Your task to perform on an android device: turn off picture-in-picture Image 0: 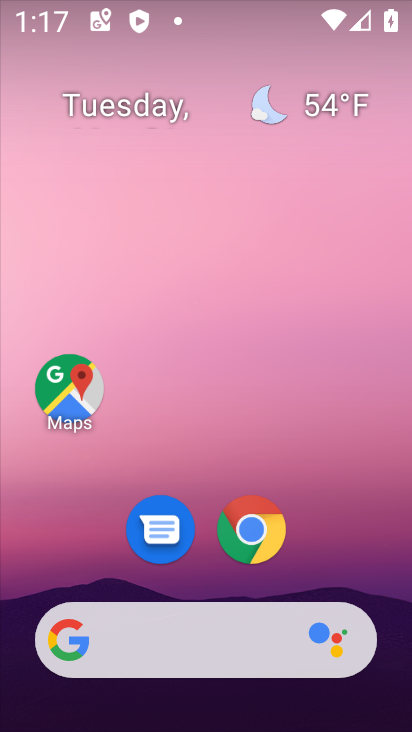
Step 0: click (250, 525)
Your task to perform on an android device: turn off picture-in-picture Image 1: 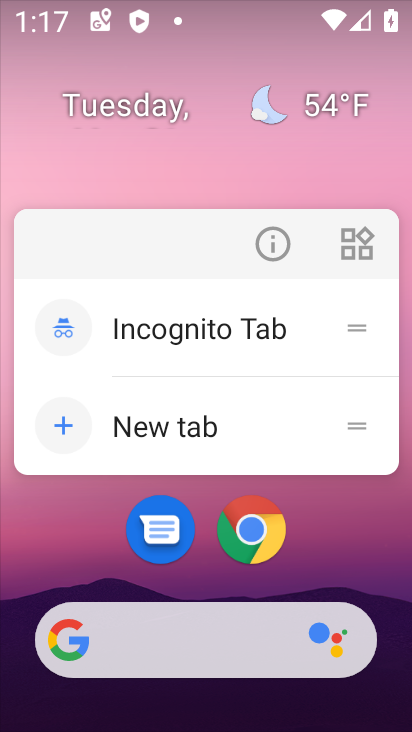
Step 1: click (270, 243)
Your task to perform on an android device: turn off picture-in-picture Image 2: 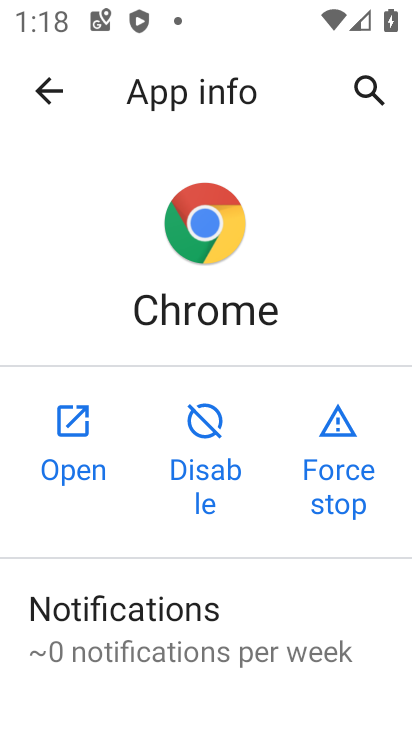
Step 2: drag from (229, 602) to (277, 435)
Your task to perform on an android device: turn off picture-in-picture Image 3: 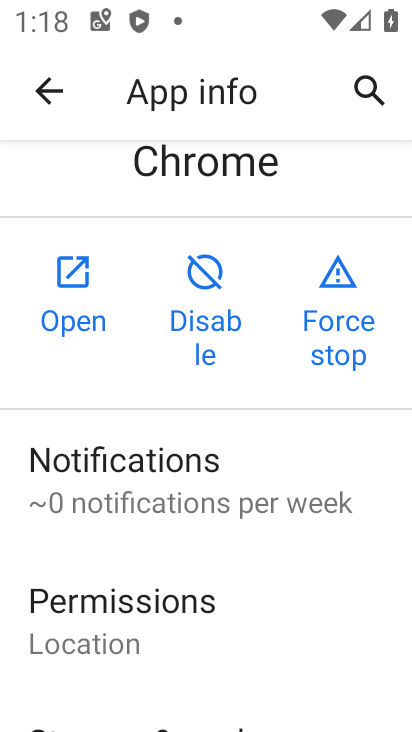
Step 3: drag from (230, 593) to (312, 494)
Your task to perform on an android device: turn off picture-in-picture Image 4: 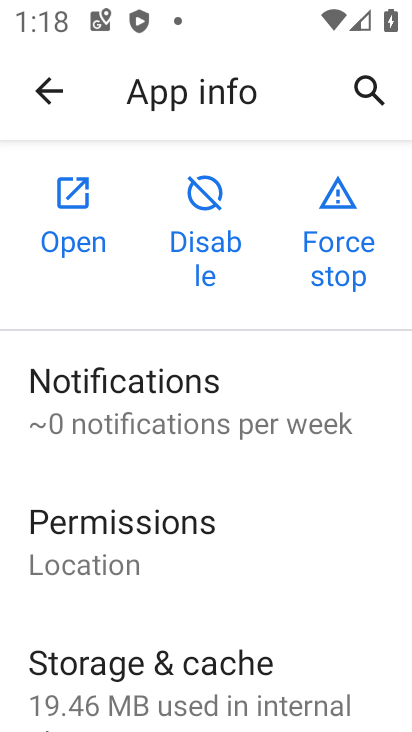
Step 4: drag from (225, 597) to (297, 494)
Your task to perform on an android device: turn off picture-in-picture Image 5: 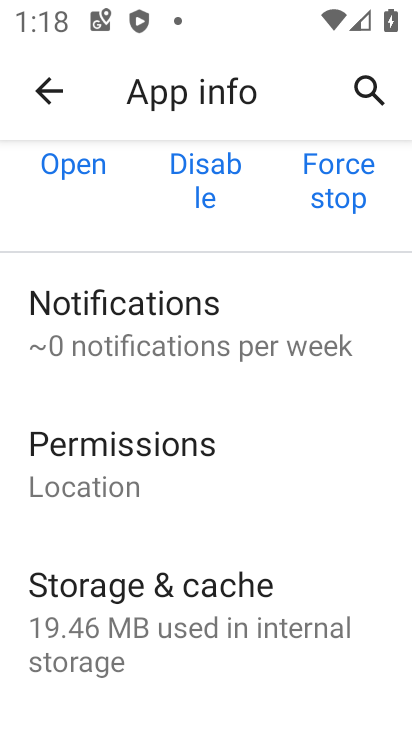
Step 5: drag from (234, 633) to (312, 502)
Your task to perform on an android device: turn off picture-in-picture Image 6: 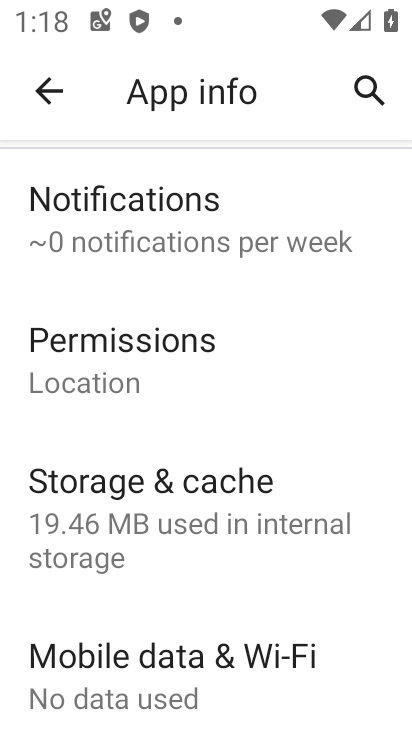
Step 6: drag from (222, 657) to (285, 530)
Your task to perform on an android device: turn off picture-in-picture Image 7: 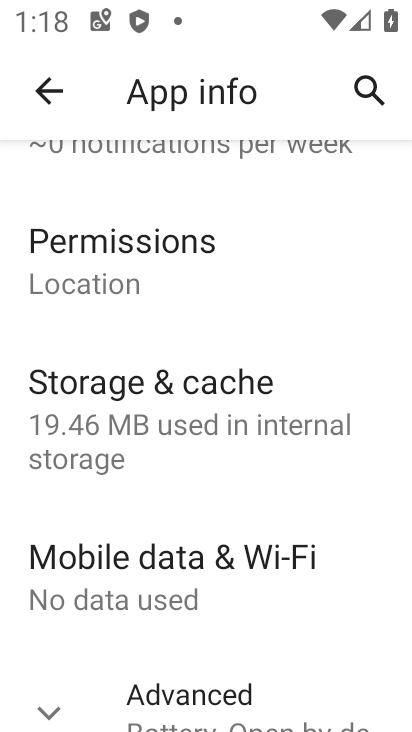
Step 7: drag from (212, 639) to (300, 522)
Your task to perform on an android device: turn off picture-in-picture Image 8: 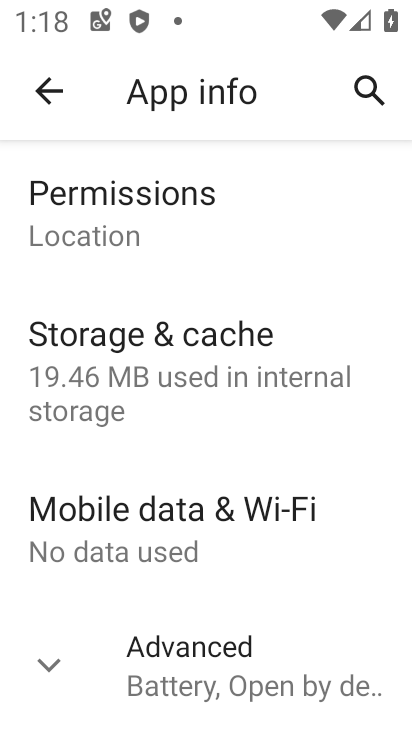
Step 8: click (229, 687)
Your task to perform on an android device: turn off picture-in-picture Image 9: 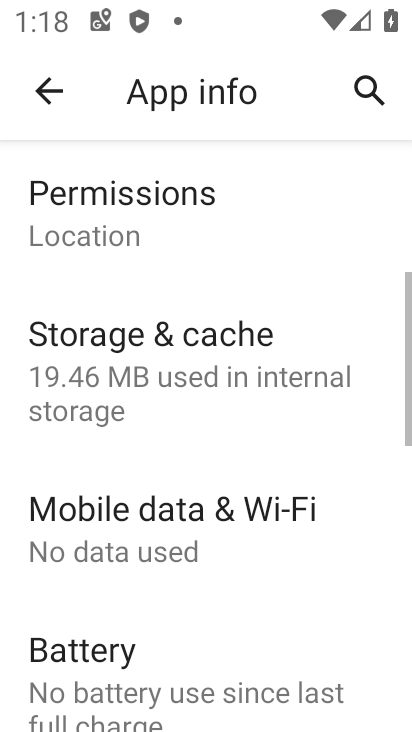
Step 9: drag from (229, 649) to (265, 547)
Your task to perform on an android device: turn off picture-in-picture Image 10: 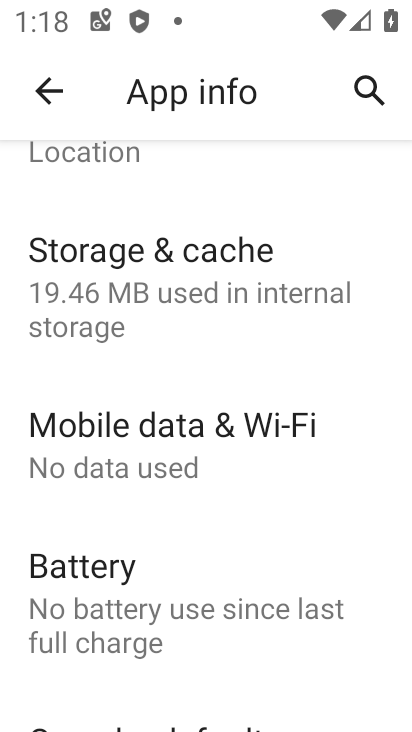
Step 10: drag from (218, 653) to (259, 560)
Your task to perform on an android device: turn off picture-in-picture Image 11: 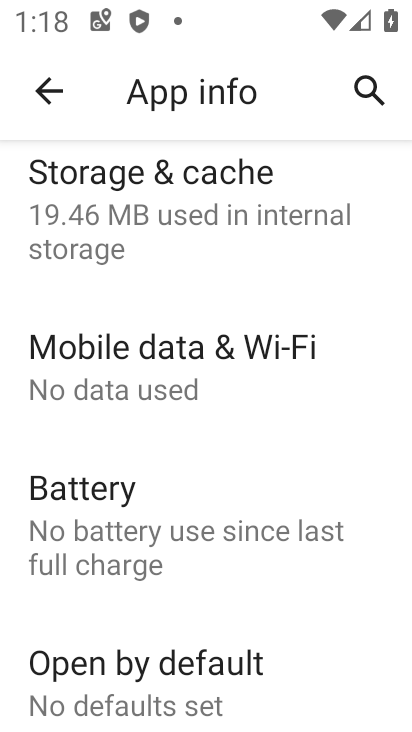
Step 11: drag from (239, 686) to (315, 568)
Your task to perform on an android device: turn off picture-in-picture Image 12: 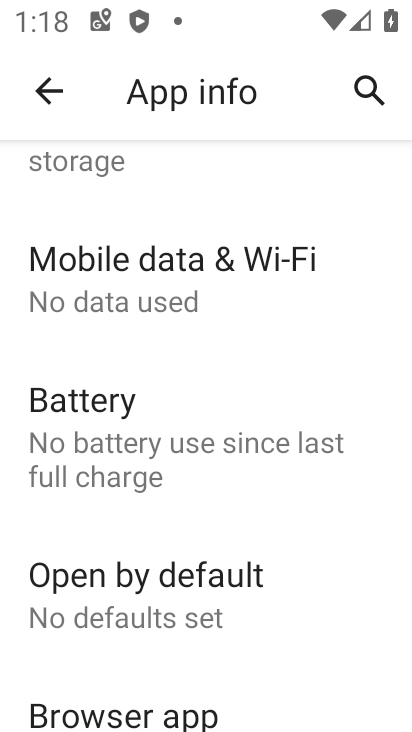
Step 12: drag from (220, 662) to (328, 507)
Your task to perform on an android device: turn off picture-in-picture Image 13: 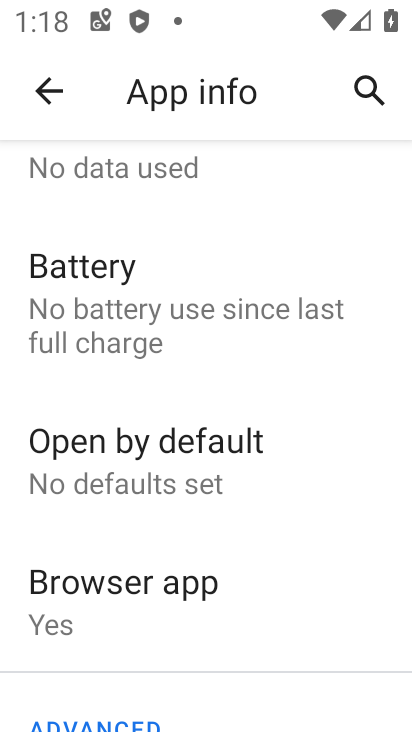
Step 13: drag from (188, 641) to (251, 512)
Your task to perform on an android device: turn off picture-in-picture Image 14: 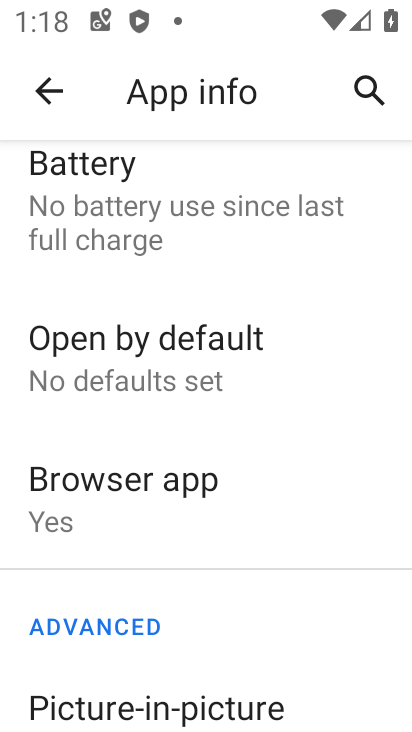
Step 14: drag from (184, 638) to (274, 454)
Your task to perform on an android device: turn off picture-in-picture Image 15: 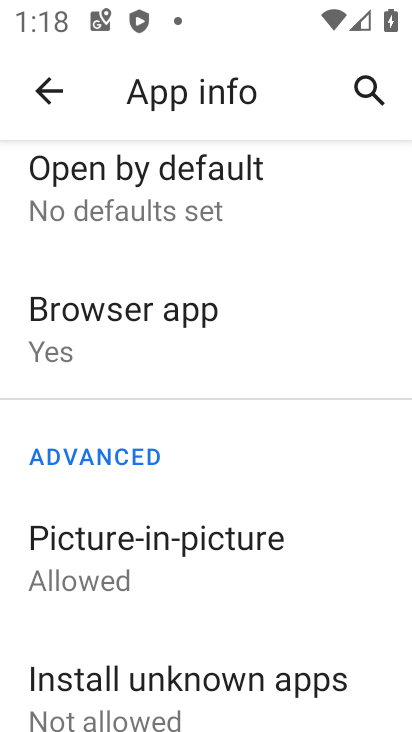
Step 15: click (203, 550)
Your task to perform on an android device: turn off picture-in-picture Image 16: 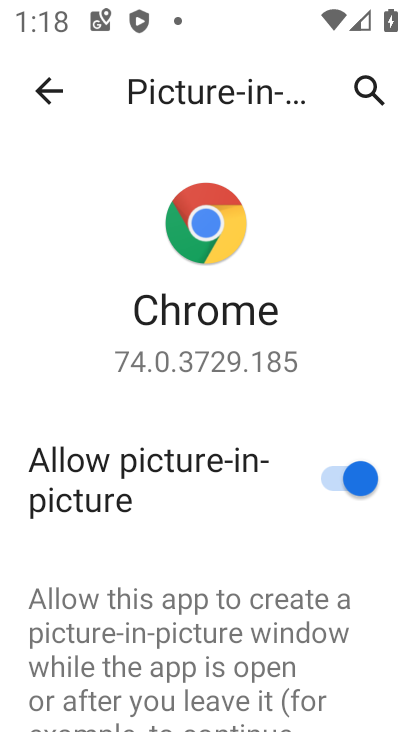
Step 16: click (320, 478)
Your task to perform on an android device: turn off picture-in-picture Image 17: 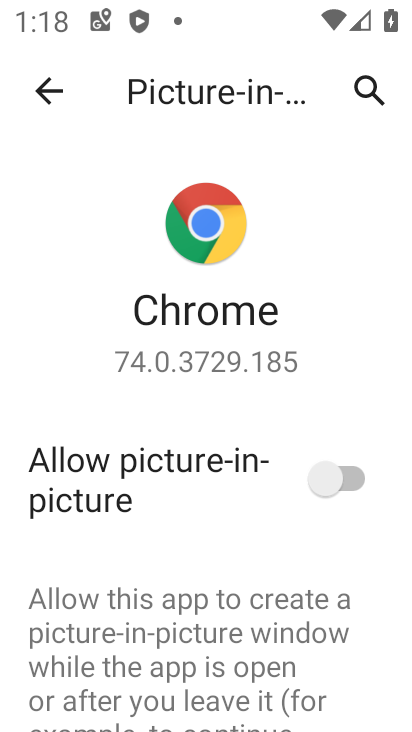
Step 17: task complete